Your task to perform on an android device: Add panasonic triple a to the cart on amazon, then select checkout. Image 0: 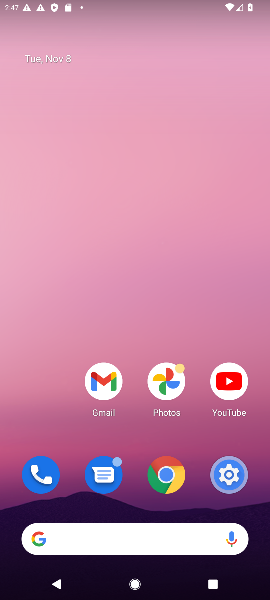
Step 0: drag from (77, 544) to (102, 82)
Your task to perform on an android device: Add panasonic triple a to the cart on amazon, then select checkout. Image 1: 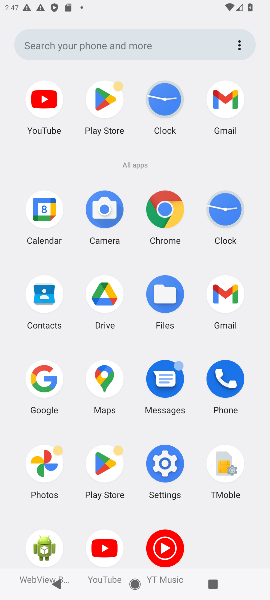
Step 1: click (40, 371)
Your task to perform on an android device: Add panasonic triple a to the cart on amazon, then select checkout. Image 2: 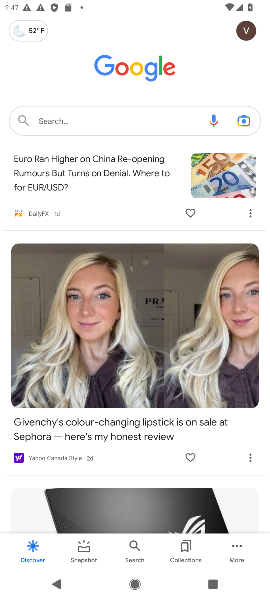
Step 2: click (114, 115)
Your task to perform on an android device: Add panasonic triple a to the cart on amazon, then select checkout. Image 3: 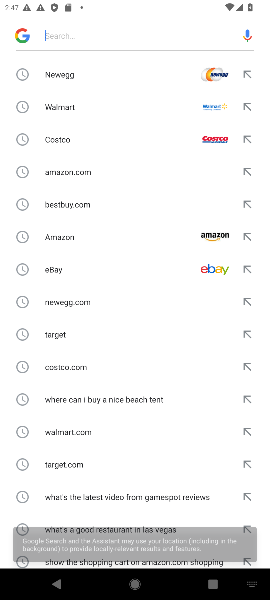
Step 3: type "amazon "
Your task to perform on an android device: Add panasonic triple a to the cart on amazon, then select checkout. Image 4: 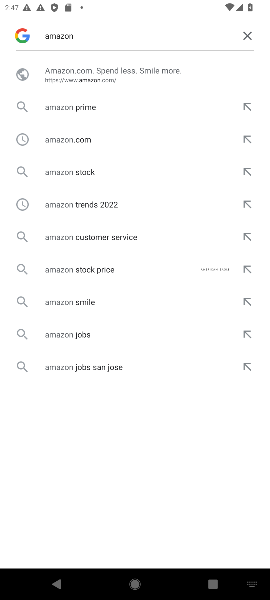
Step 4: click (72, 238)
Your task to perform on an android device: Add panasonic triple a to the cart on amazon, then select checkout. Image 5: 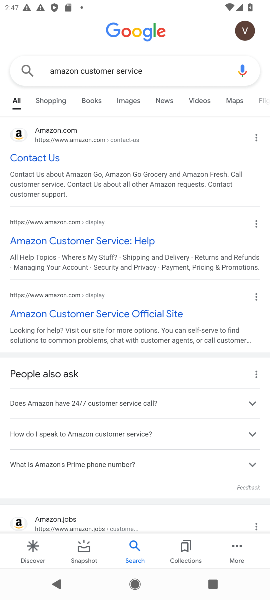
Step 5: click (16, 130)
Your task to perform on an android device: Add panasonic triple a to the cart on amazon, then select checkout. Image 6: 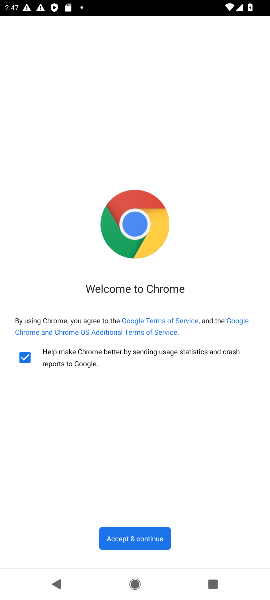
Step 6: click (143, 531)
Your task to perform on an android device: Add panasonic triple a to the cart on amazon, then select checkout. Image 7: 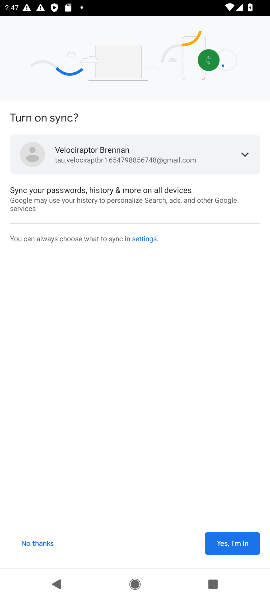
Step 7: click (39, 545)
Your task to perform on an android device: Add panasonic triple a to the cart on amazon, then select checkout. Image 8: 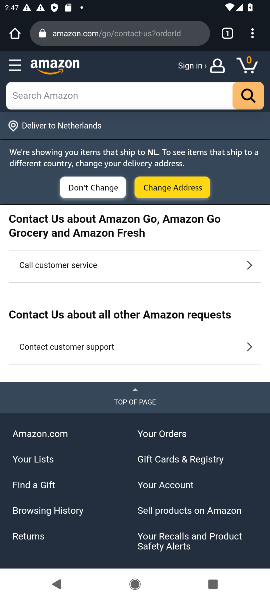
Step 8: click (142, 85)
Your task to perform on an android device: Add panasonic triple a to the cart on amazon, then select checkout. Image 9: 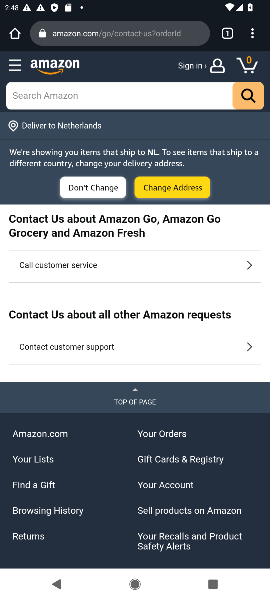
Step 9: type " panasonic triple  "
Your task to perform on an android device: Add panasonic triple a to the cart on amazon, then select checkout. Image 10: 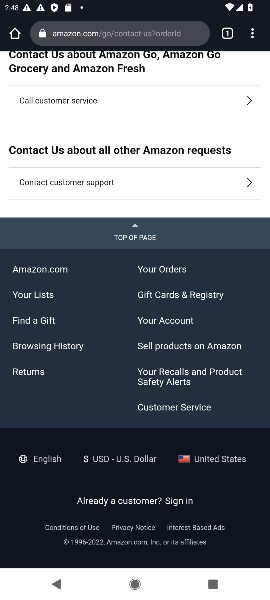
Step 10: drag from (144, 111) to (147, 491)
Your task to perform on an android device: Add panasonic triple a to the cart on amazon, then select checkout. Image 11: 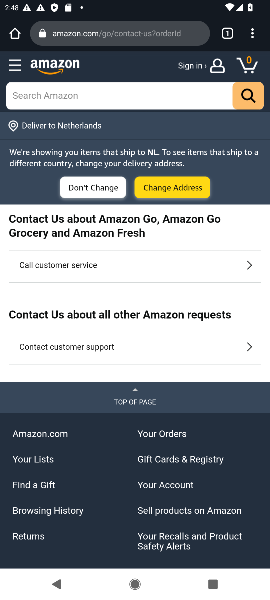
Step 11: click (124, 85)
Your task to perform on an android device: Add panasonic triple a to the cart on amazon, then select checkout. Image 12: 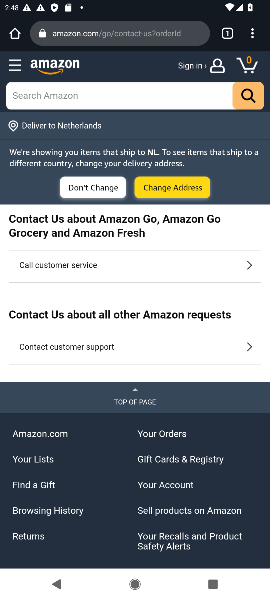
Step 12: click (163, 92)
Your task to perform on an android device: Add panasonic triple a to the cart on amazon, then select checkout. Image 13: 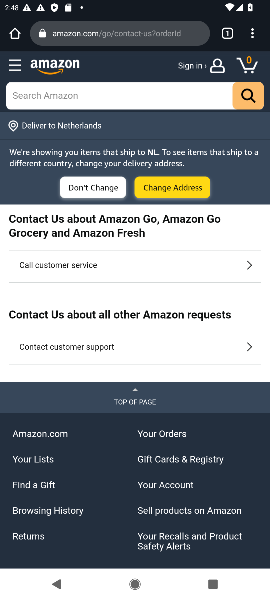
Step 13: click (163, 92)
Your task to perform on an android device: Add panasonic triple a to the cart on amazon, then select checkout. Image 14: 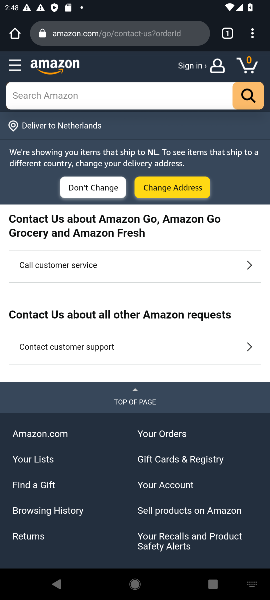
Step 14: click (163, 92)
Your task to perform on an android device: Add panasonic triple a to the cart on amazon, then select checkout. Image 15: 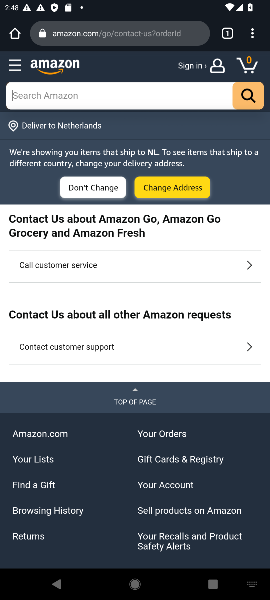
Step 15: type "panasonic triple "
Your task to perform on an android device: Add panasonic triple a to the cart on amazon, then select checkout. Image 16: 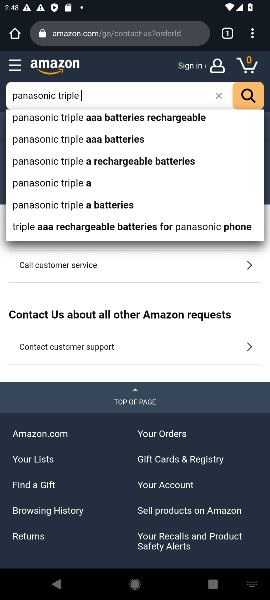
Step 16: click (75, 118)
Your task to perform on an android device: Add panasonic triple a to the cart on amazon, then select checkout. Image 17: 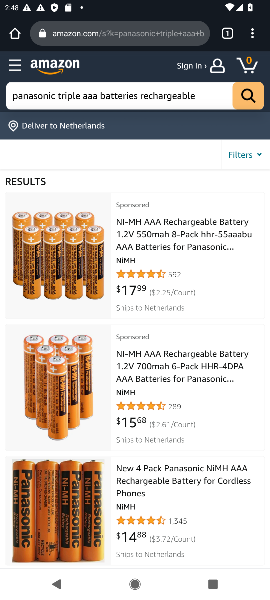
Step 17: click (137, 237)
Your task to perform on an android device: Add panasonic triple a to the cart on amazon, then select checkout. Image 18: 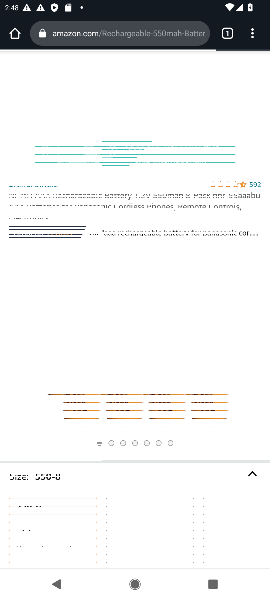
Step 18: drag from (94, 524) to (138, 226)
Your task to perform on an android device: Add panasonic triple a to the cart on amazon, then select checkout. Image 19: 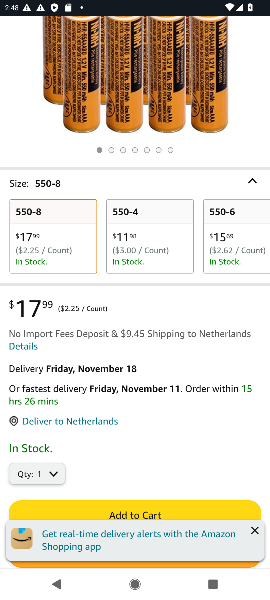
Step 19: drag from (153, 478) to (179, 263)
Your task to perform on an android device: Add panasonic triple a to the cart on amazon, then select checkout. Image 20: 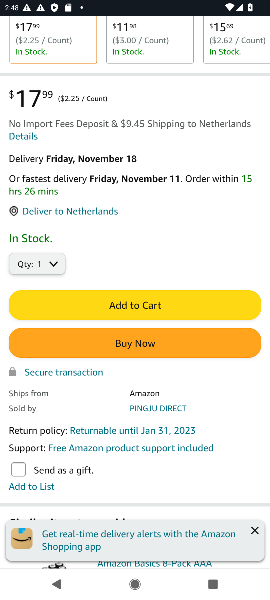
Step 20: click (258, 529)
Your task to perform on an android device: Add panasonic triple a to the cart on amazon, then select checkout. Image 21: 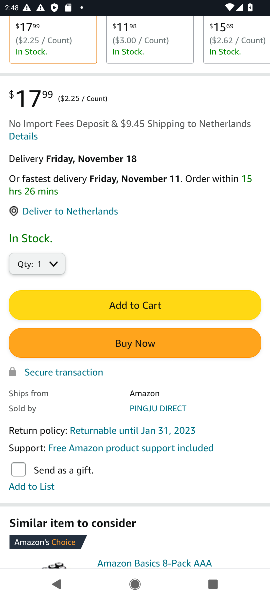
Step 21: click (174, 293)
Your task to perform on an android device: Add panasonic triple a to the cart on amazon, then select checkout. Image 22: 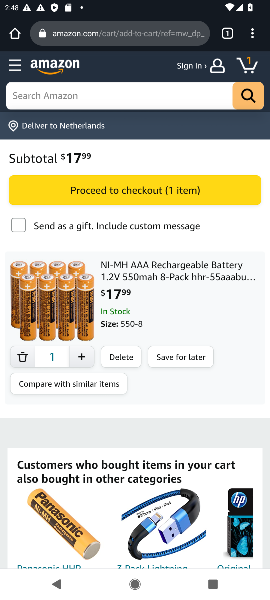
Step 22: task complete